Your task to perform on an android device: Go to Google Image 0: 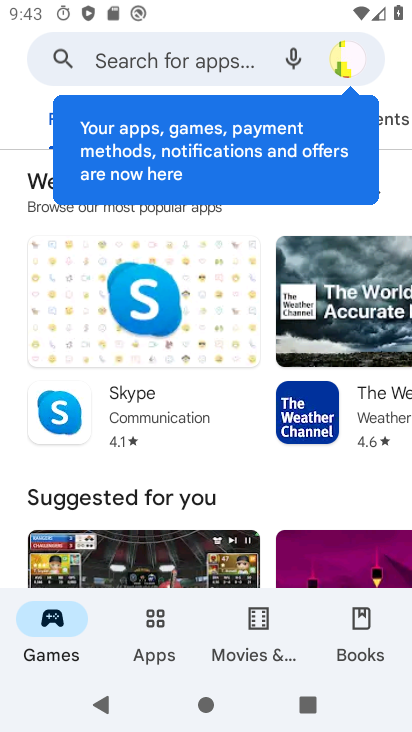
Step 0: press home button
Your task to perform on an android device: Go to Google Image 1: 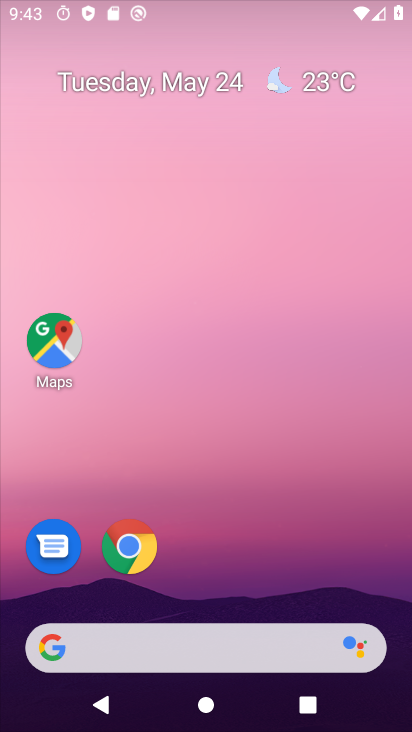
Step 1: drag from (226, 606) to (309, 84)
Your task to perform on an android device: Go to Google Image 2: 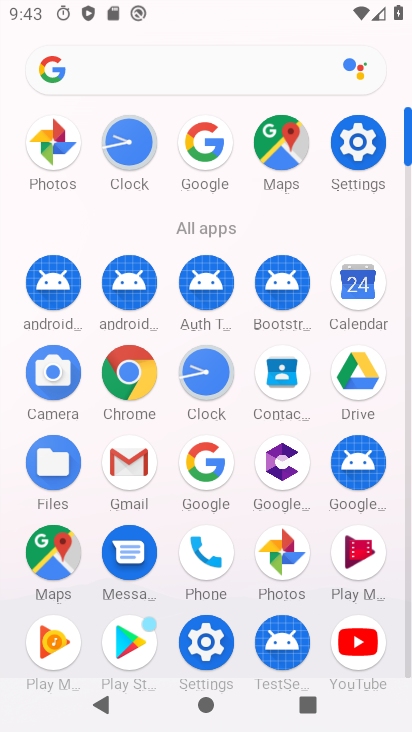
Step 2: click (219, 452)
Your task to perform on an android device: Go to Google Image 3: 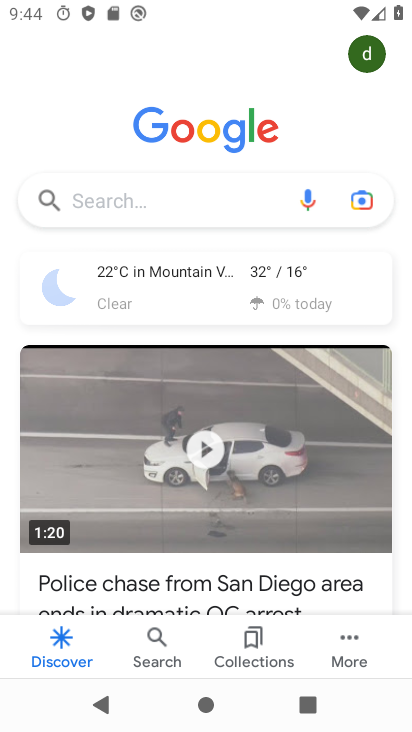
Step 3: task complete